Your task to perform on an android device: Open Google Chrome Image 0: 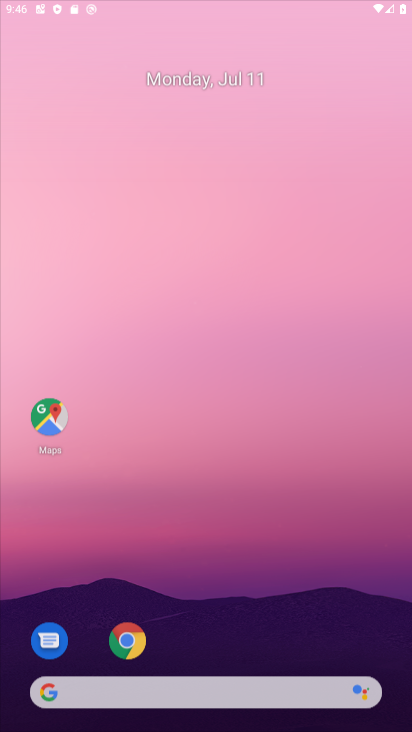
Step 0: press home button
Your task to perform on an android device: Open Google Chrome Image 1: 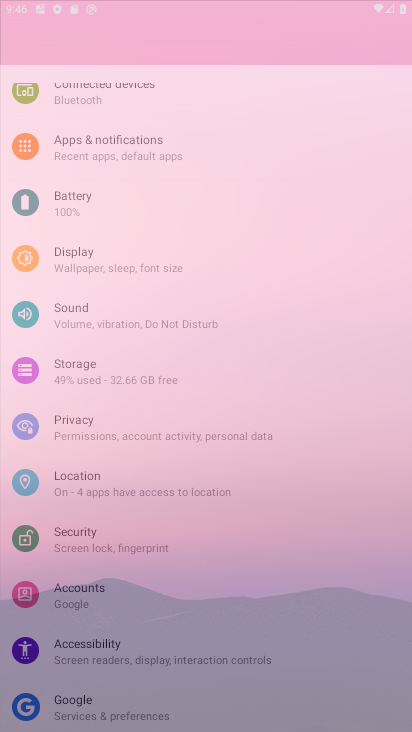
Step 1: drag from (219, 652) to (216, 143)
Your task to perform on an android device: Open Google Chrome Image 2: 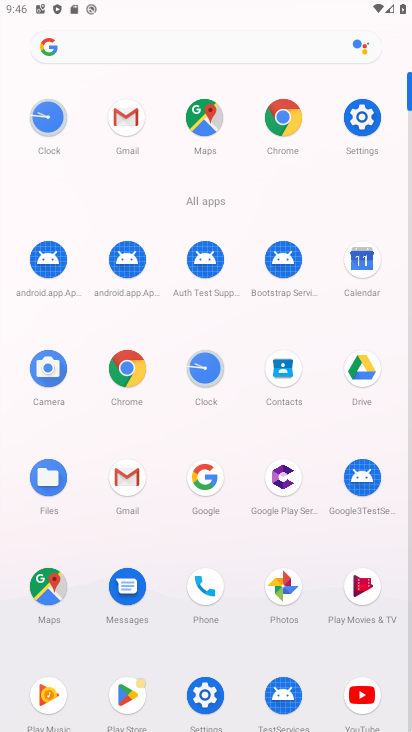
Step 2: click (358, 108)
Your task to perform on an android device: Open Google Chrome Image 3: 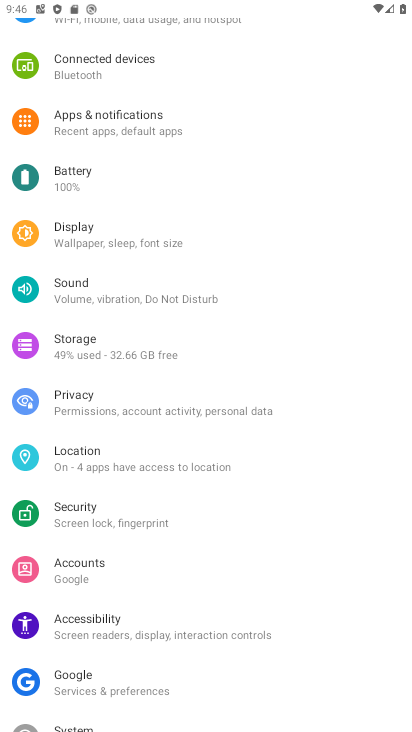
Step 3: press home button
Your task to perform on an android device: Open Google Chrome Image 4: 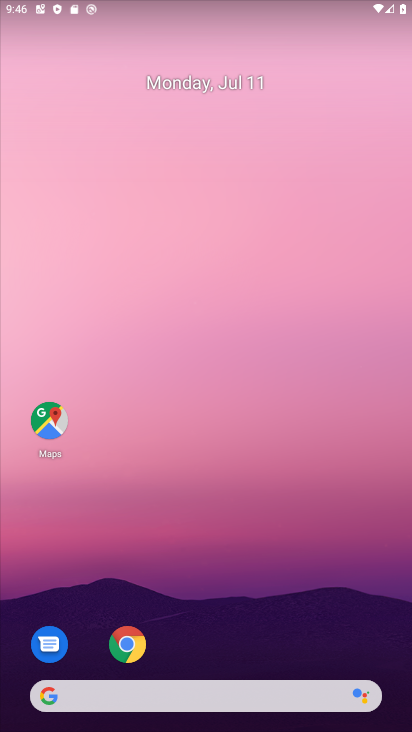
Step 4: click (129, 639)
Your task to perform on an android device: Open Google Chrome Image 5: 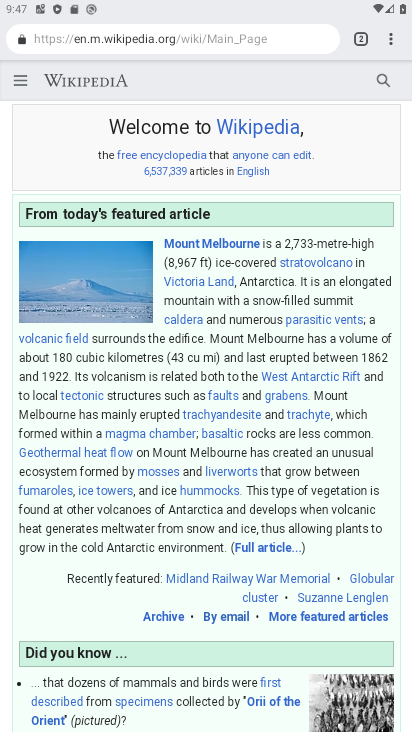
Step 5: task complete